Your task to perform on an android device: search for starred emails in the gmail app Image 0: 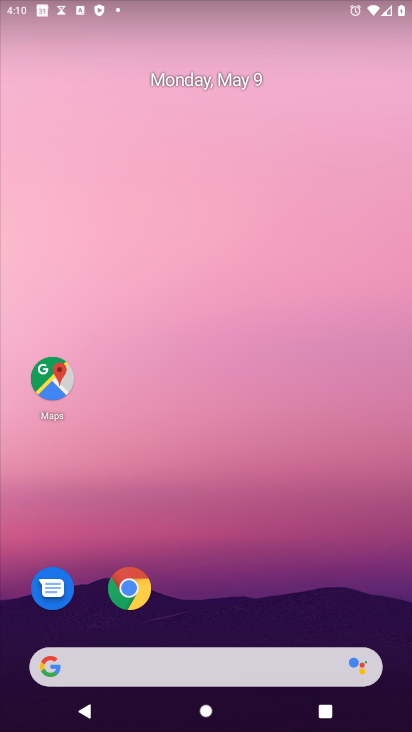
Step 0: drag from (206, 588) to (184, 39)
Your task to perform on an android device: search for starred emails in the gmail app Image 1: 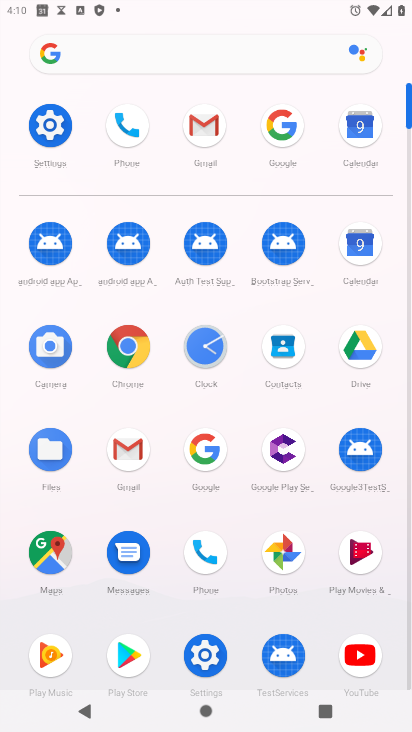
Step 1: click (146, 450)
Your task to perform on an android device: search for starred emails in the gmail app Image 2: 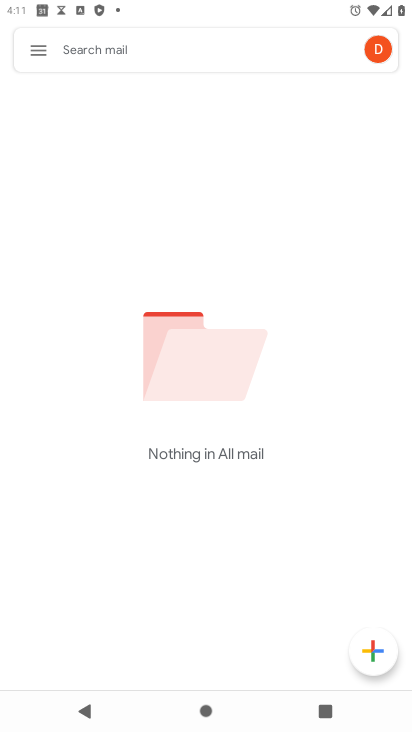
Step 2: click (119, 42)
Your task to perform on an android device: search for starred emails in the gmail app Image 3: 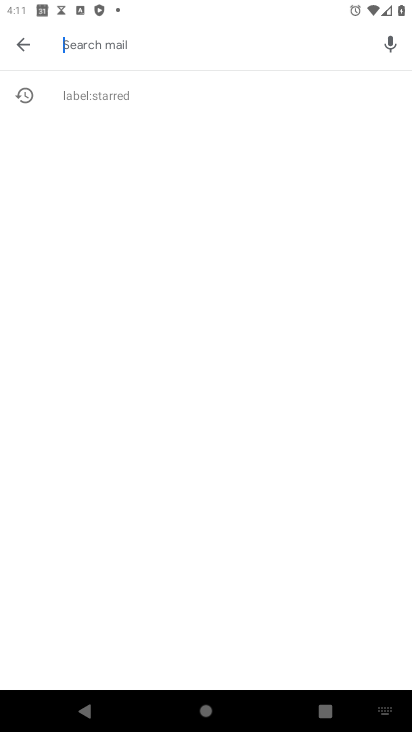
Step 3: click (171, 95)
Your task to perform on an android device: search for starred emails in the gmail app Image 4: 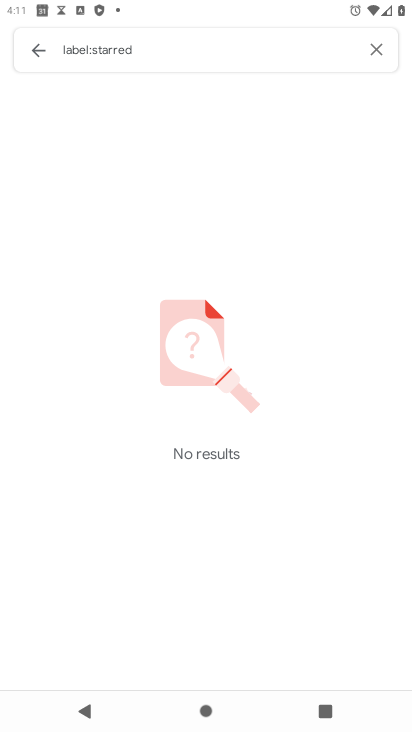
Step 4: task complete